Your task to perform on an android device: Go to network settings Image 0: 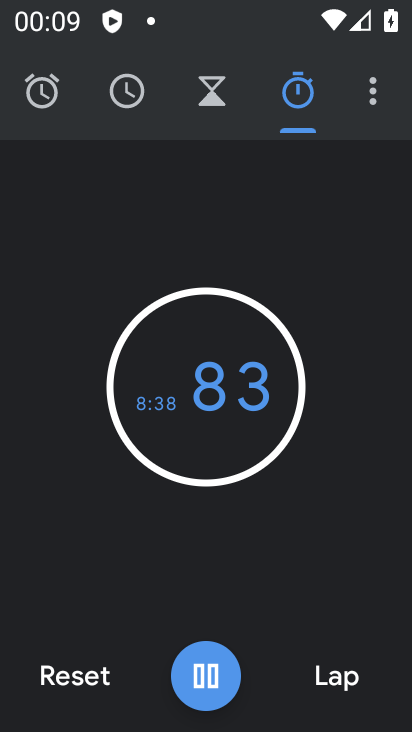
Step 0: press home button
Your task to perform on an android device: Go to network settings Image 1: 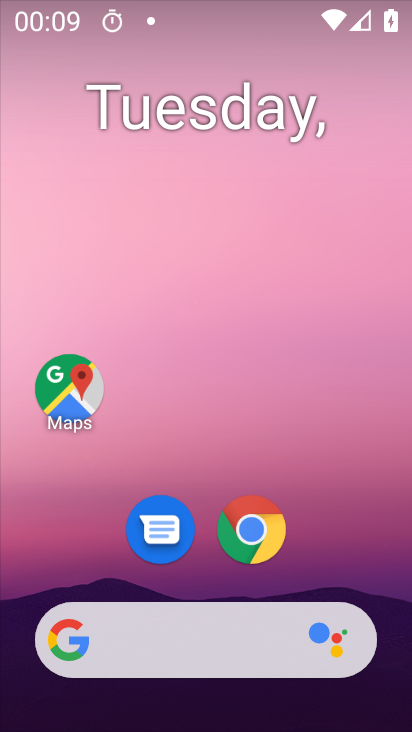
Step 1: drag from (372, 569) to (289, 96)
Your task to perform on an android device: Go to network settings Image 2: 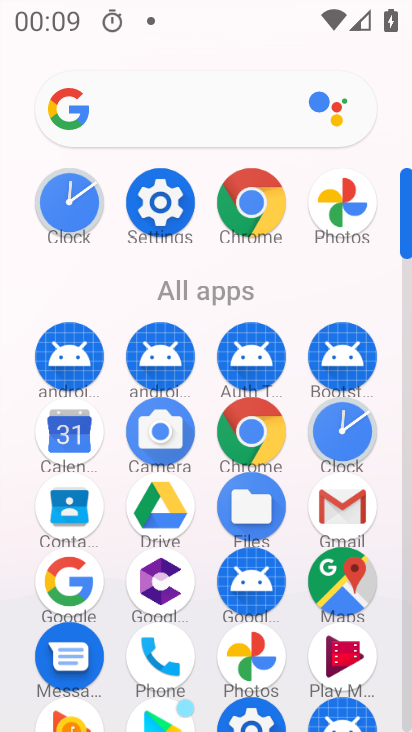
Step 2: click (169, 182)
Your task to perform on an android device: Go to network settings Image 3: 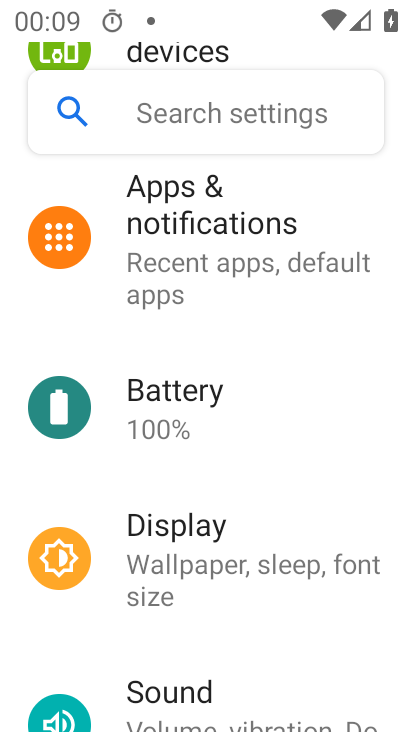
Step 3: drag from (169, 178) to (159, 601)
Your task to perform on an android device: Go to network settings Image 4: 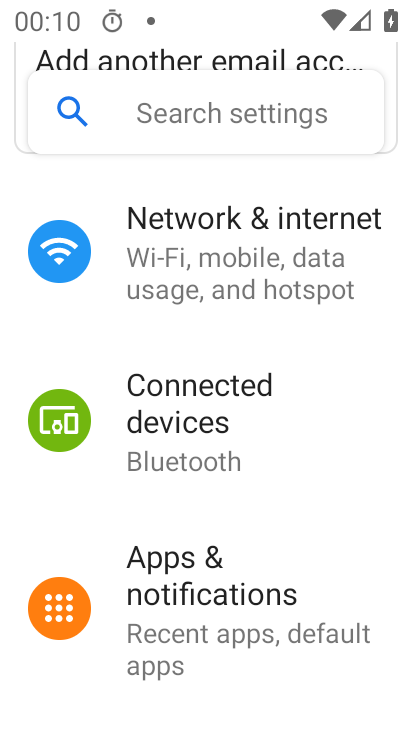
Step 4: click (185, 281)
Your task to perform on an android device: Go to network settings Image 5: 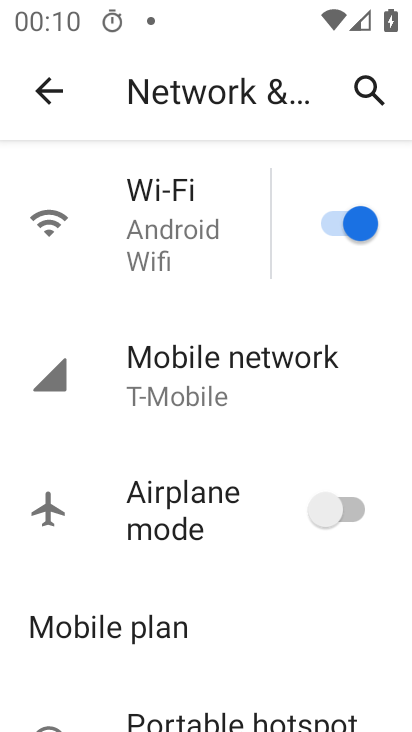
Step 5: task complete